Your task to perform on an android device: turn on location history Image 0: 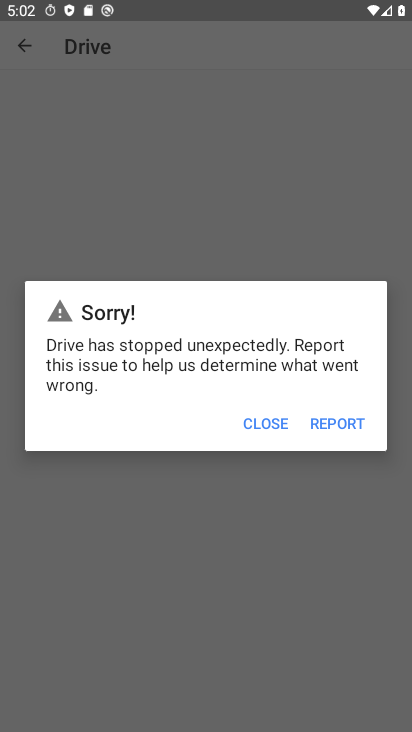
Step 0: press back button
Your task to perform on an android device: turn on location history Image 1: 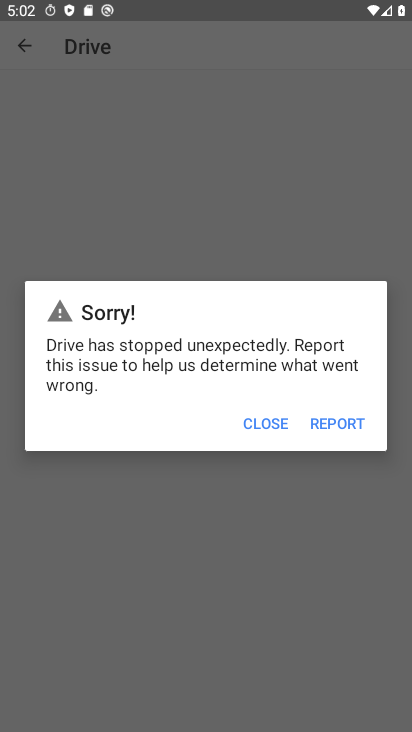
Step 1: press home button
Your task to perform on an android device: turn on location history Image 2: 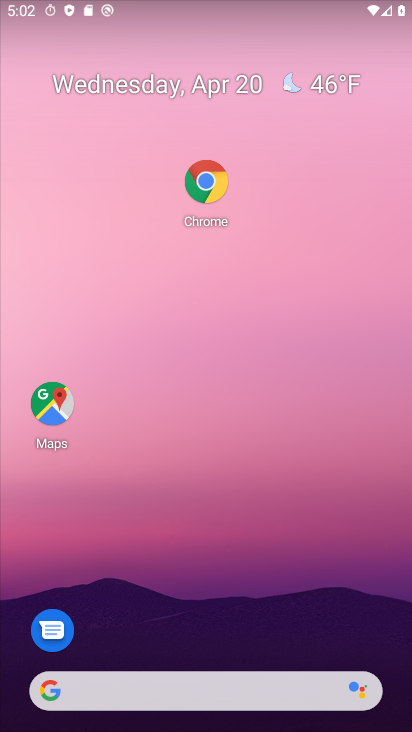
Step 2: drag from (182, 608) to (182, 349)
Your task to perform on an android device: turn on location history Image 3: 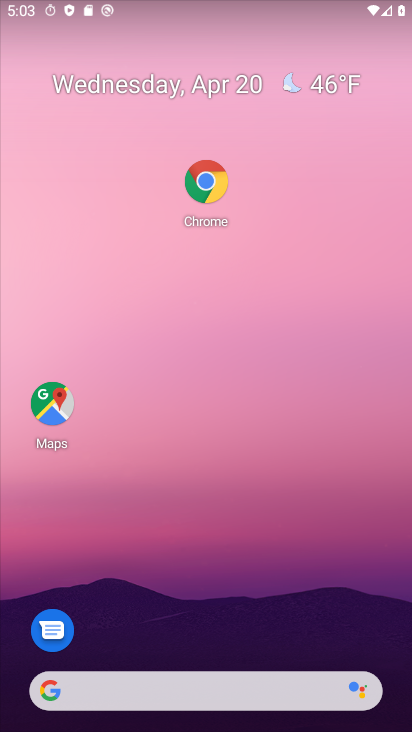
Step 3: drag from (194, 503) to (389, 46)
Your task to perform on an android device: turn on location history Image 4: 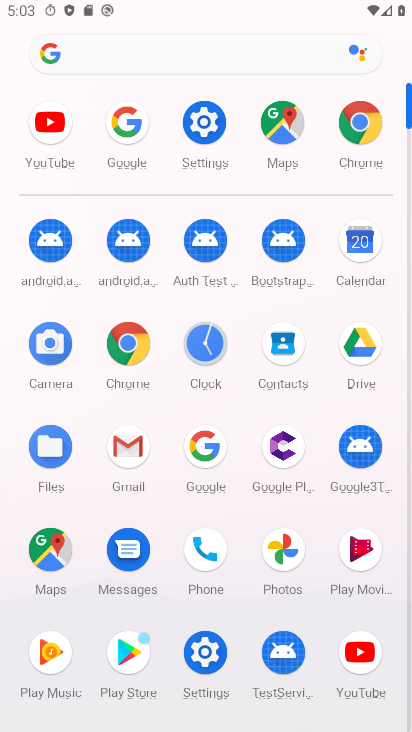
Step 4: click (199, 125)
Your task to perform on an android device: turn on location history Image 5: 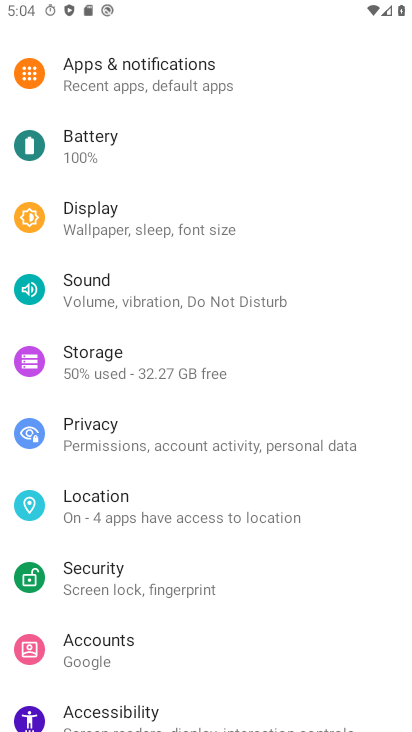
Step 5: click (107, 513)
Your task to perform on an android device: turn on location history Image 6: 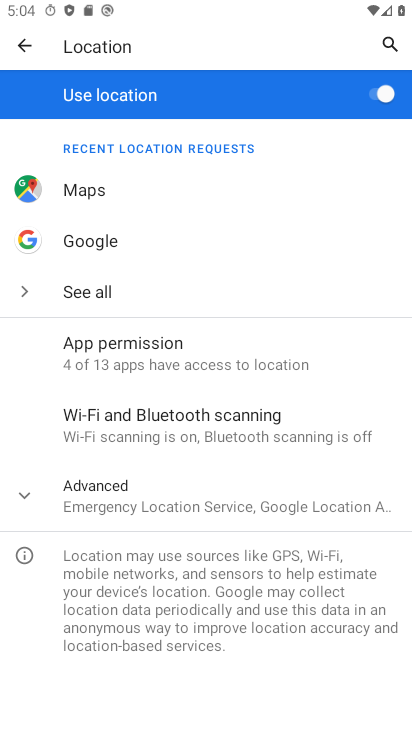
Step 6: click (81, 495)
Your task to perform on an android device: turn on location history Image 7: 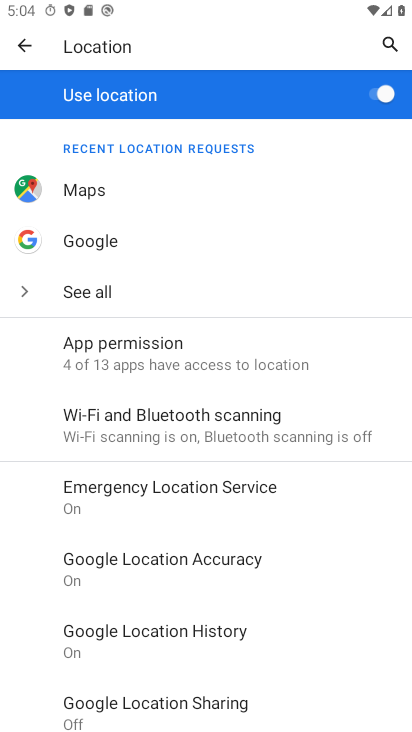
Step 7: click (137, 635)
Your task to perform on an android device: turn on location history Image 8: 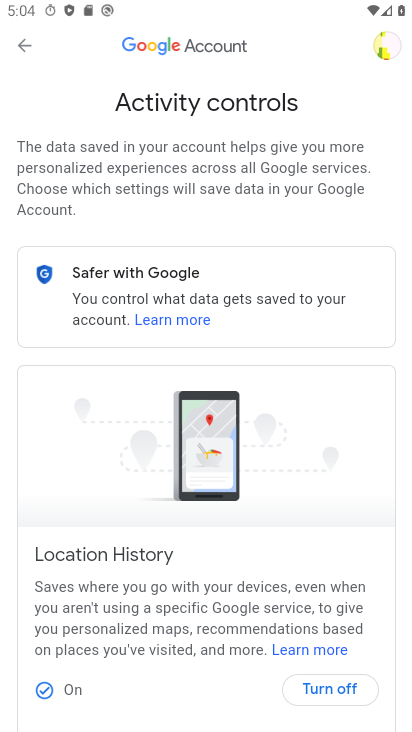
Step 8: task complete